Your task to perform on an android device: Search for vegetarian restaurants on Maps Image 0: 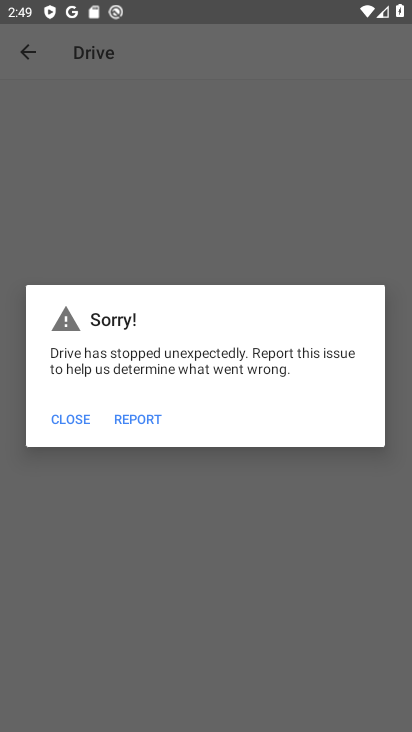
Step 0: press home button
Your task to perform on an android device: Search for vegetarian restaurants on Maps Image 1: 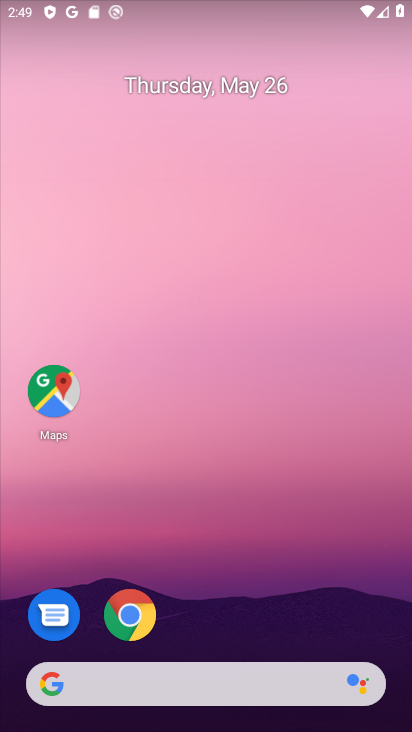
Step 1: drag from (223, 608) to (216, 114)
Your task to perform on an android device: Search for vegetarian restaurants on Maps Image 2: 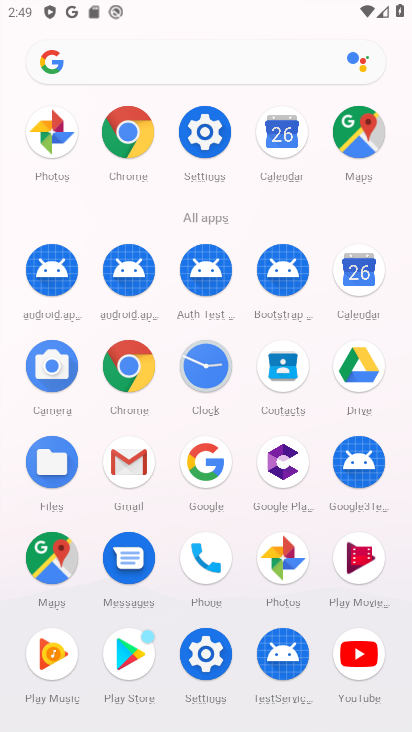
Step 2: click (57, 574)
Your task to perform on an android device: Search for vegetarian restaurants on Maps Image 3: 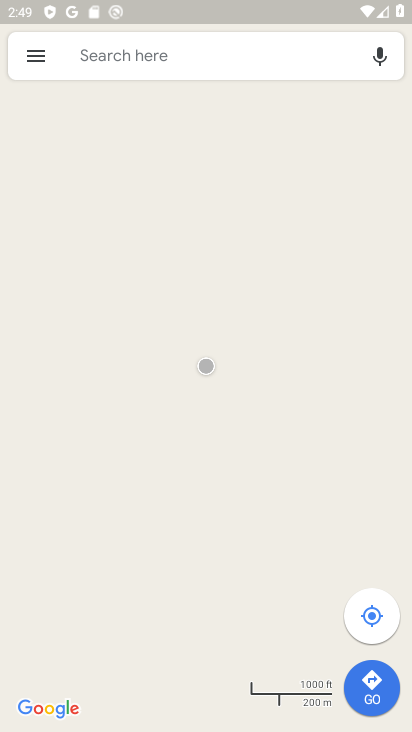
Step 3: click (180, 56)
Your task to perform on an android device: Search for vegetarian restaurants on Maps Image 4: 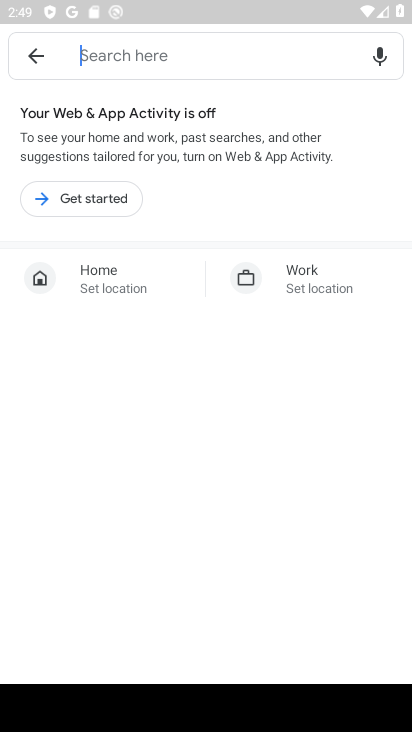
Step 4: click (34, 59)
Your task to perform on an android device: Search for vegetarian restaurants on Maps Image 5: 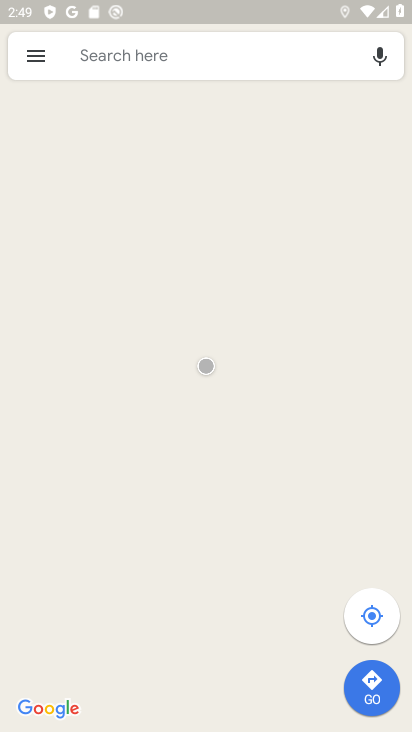
Step 5: click (134, 56)
Your task to perform on an android device: Search for vegetarian restaurants on Maps Image 6: 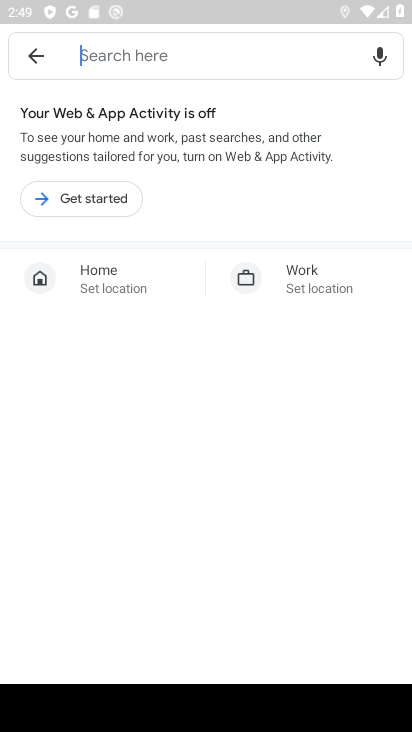
Step 6: click (37, 58)
Your task to perform on an android device: Search for vegetarian restaurants on Maps Image 7: 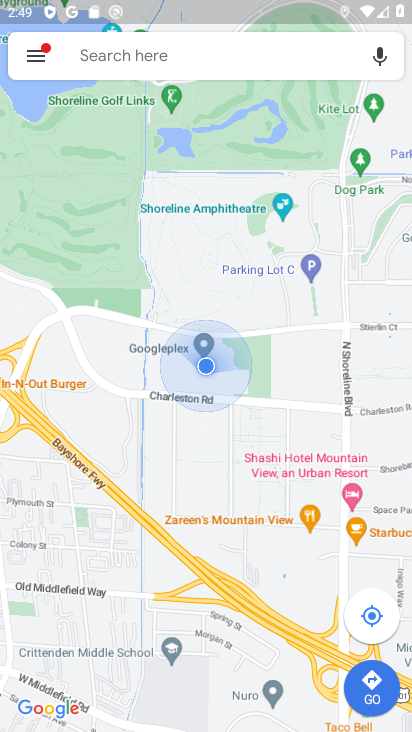
Step 7: click (116, 46)
Your task to perform on an android device: Search for vegetarian restaurants on Maps Image 8: 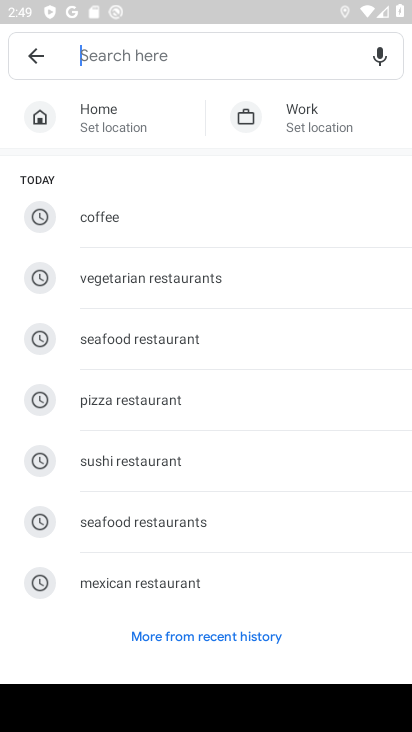
Step 8: click (154, 282)
Your task to perform on an android device: Search for vegetarian restaurants on Maps Image 9: 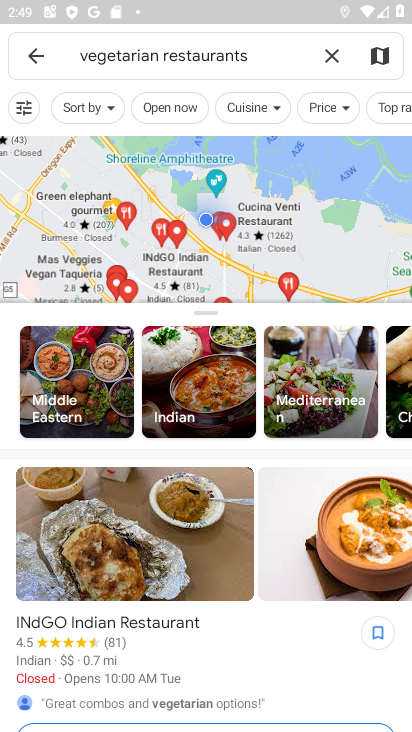
Step 9: task complete